Your task to perform on an android device: Show me popular videos on Youtube Image 0: 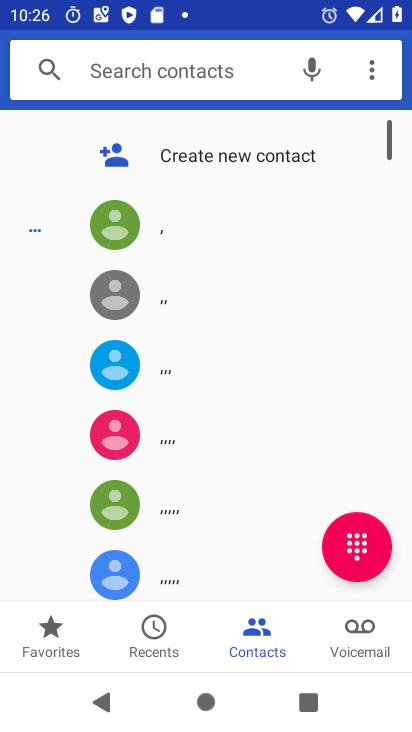
Step 0: press home button
Your task to perform on an android device: Show me popular videos on Youtube Image 1: 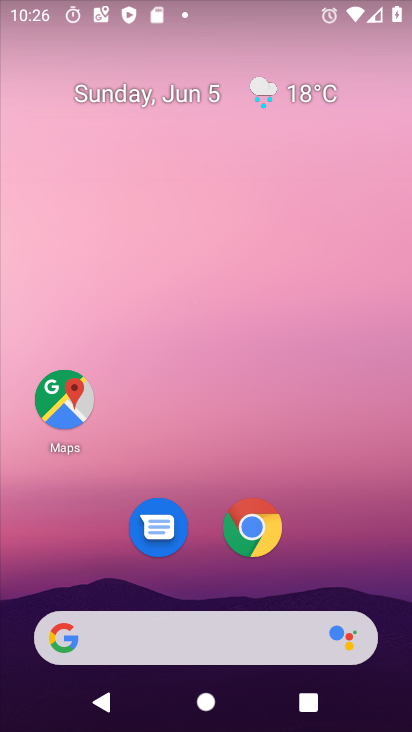
Step 1: drag from (354, 496) to (333, 28)
Your task to perform on an android device: Show me popular videos on Youtube Image 2: 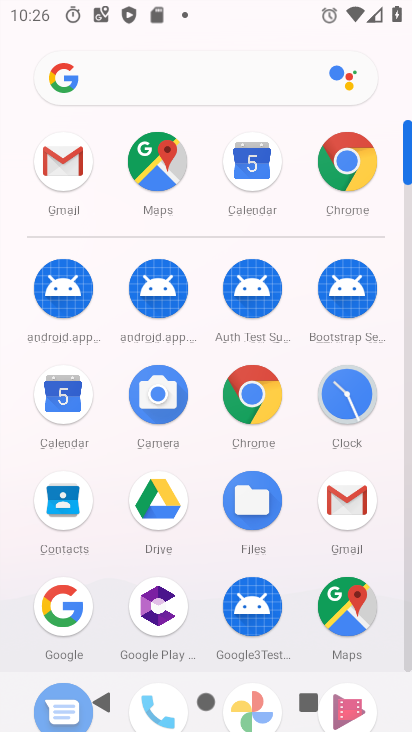
Step 2: drag from (396, 573) to (376, 258)
Your task to perform on an android device: Show me popular videos on Youtube Image 3: 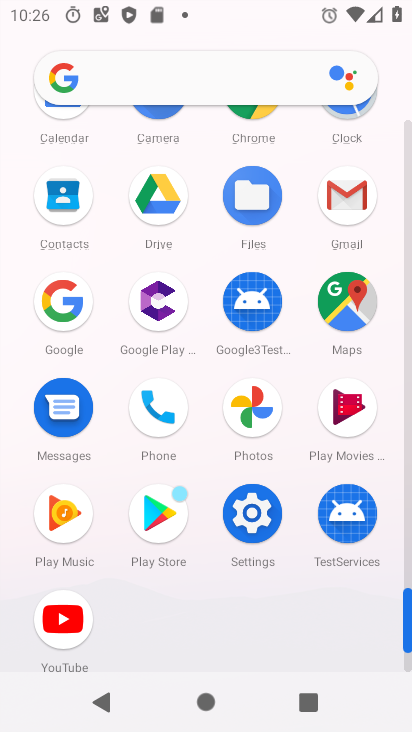
Step 3: click (72, 595)
Your task to perform on an android device: Show me popular videos on Youtube Image 4: 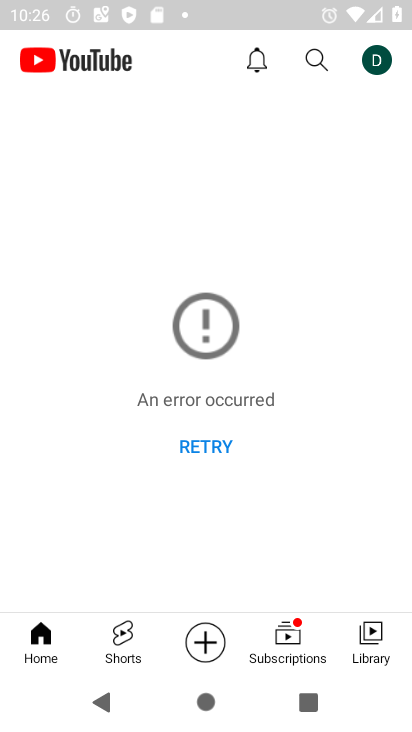
Step 4: click (310, 50)
Your task to perform on an android device: Show me popular videos on Youtube Image 5: 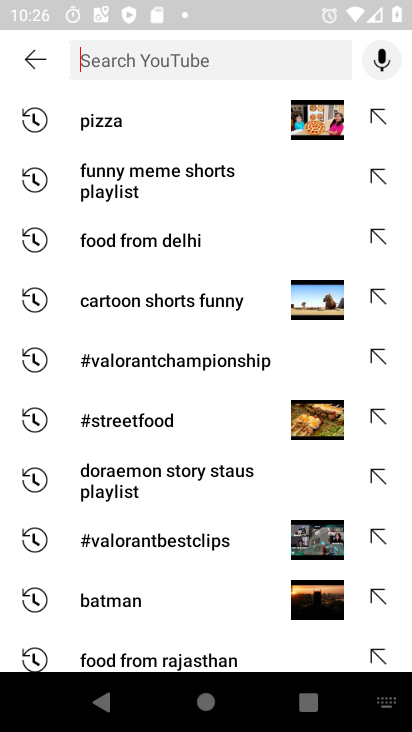
Step 5: type "popular vidoes"
Your task to perform on an android device: Show me popular videos on Youtube Image 6: 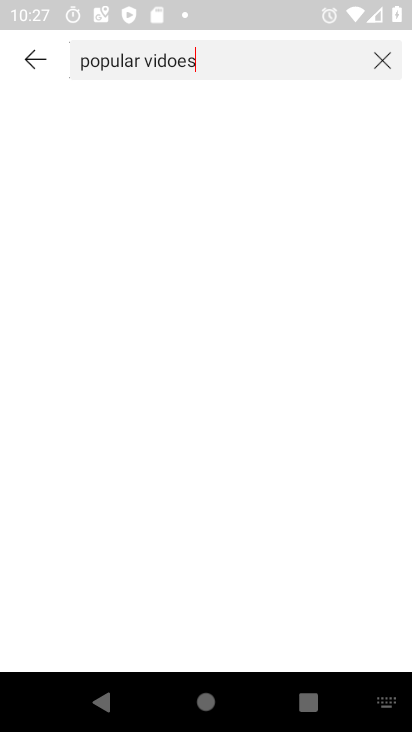
Step 6: press enter
Your task to perform on an android device: Show me popular videos on Youtube Image 7: 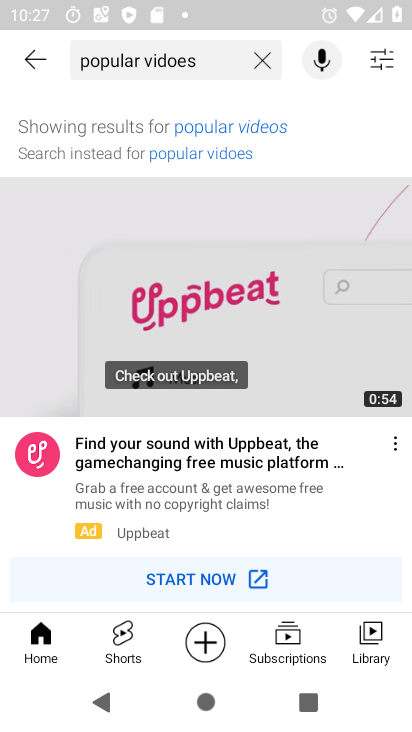
Step 7: task complete